Your task to perform on an android device: Add "amazon basics triple a" to the cart on target.com, then select checkout. Image 0: 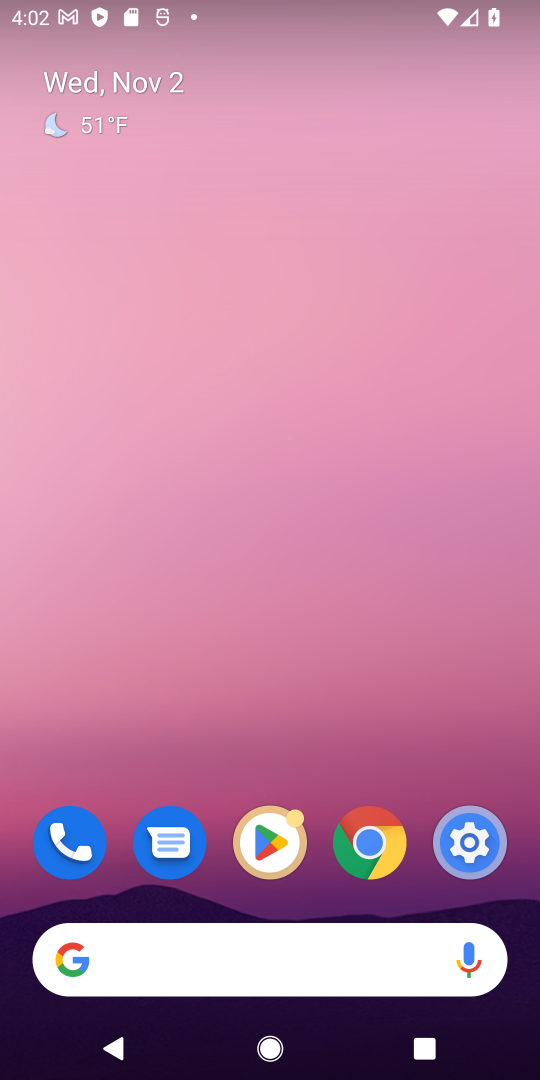
Step 0: click (273, 955)
Your task to perform on an android device: Add "amazon basics triple a" to the cart on target.com, then select checkout. Image 1: 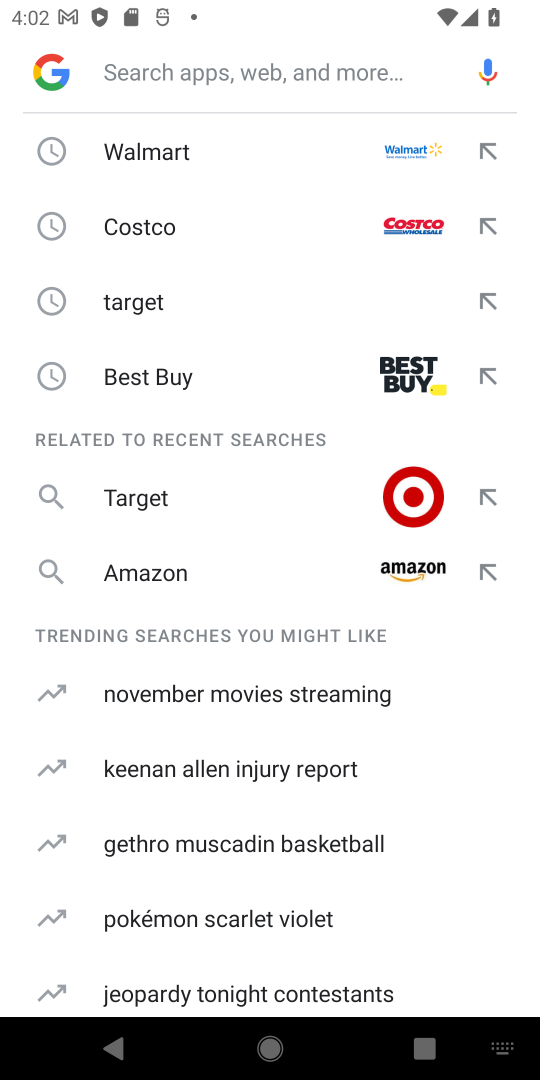
Step 1: type "target"
Your task to perform on an android device: Add "amazon basics triple a" to the cart on target.com, then select checkout. Image 2: 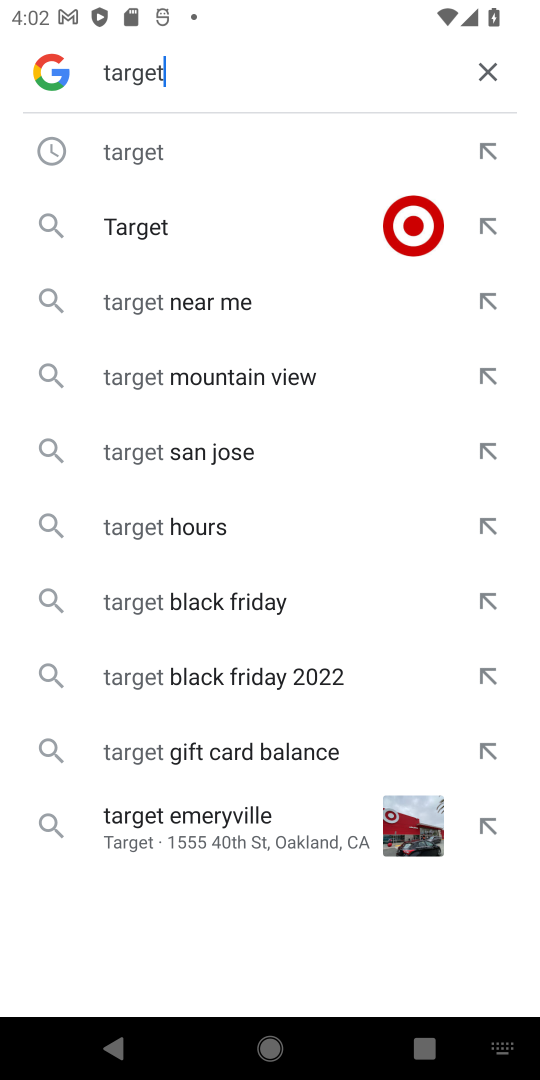
Step 2: click (146, 219)
Your task to perform on an android device: Add "amazon basics triple a" to the cart on target.com, then select checkout. Image 3: 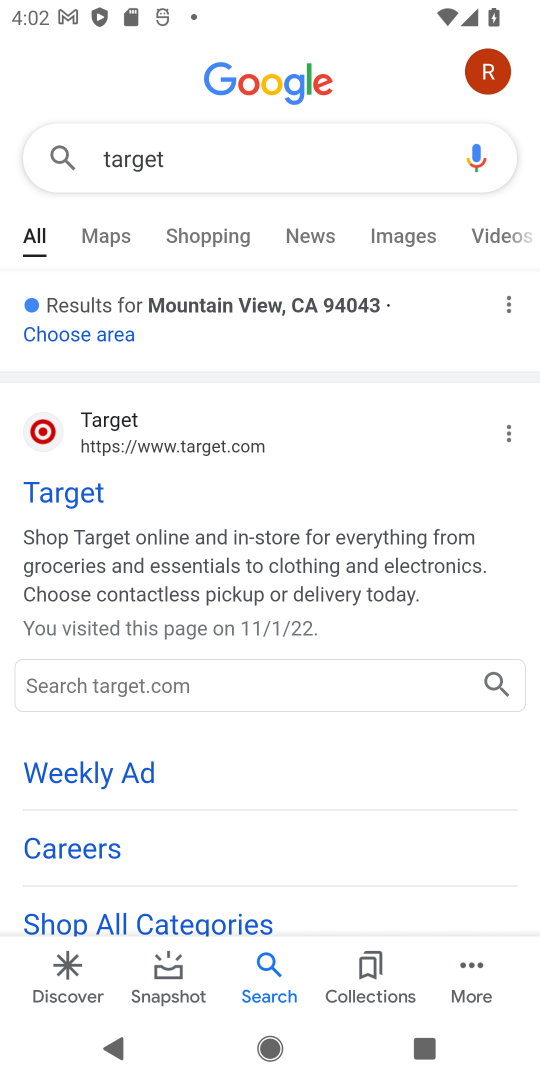
Step 3: click (83, 493)
Your task to perform on an android device: Add "amazon basics triple a" to the cart on target.com, then select checkout. Image 4: 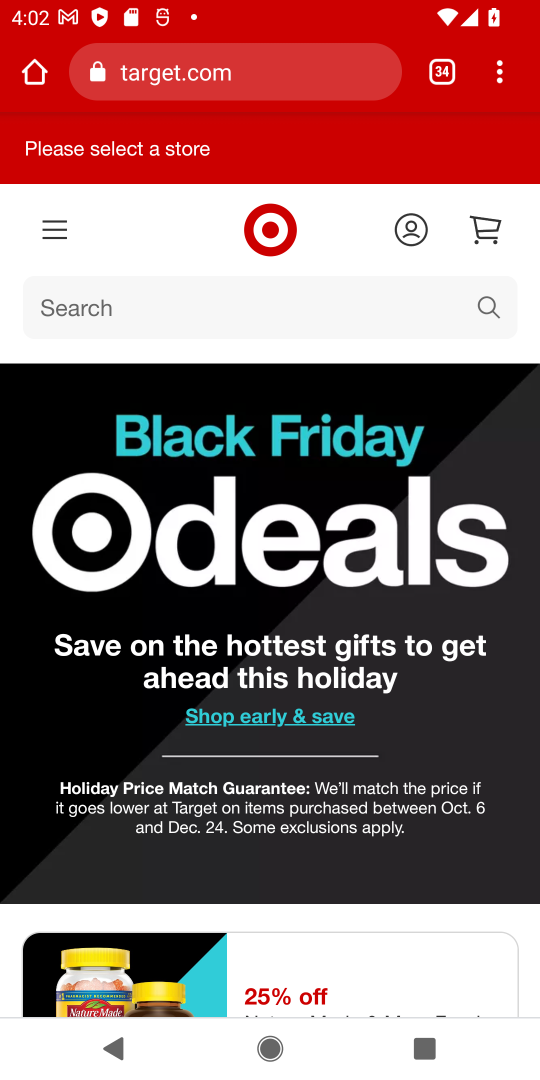
Step 4: click (154, 306)
Your task to perform on an android device: Add "amazon basics triple a" to the cart on target.com, then select checkout. Image 5: 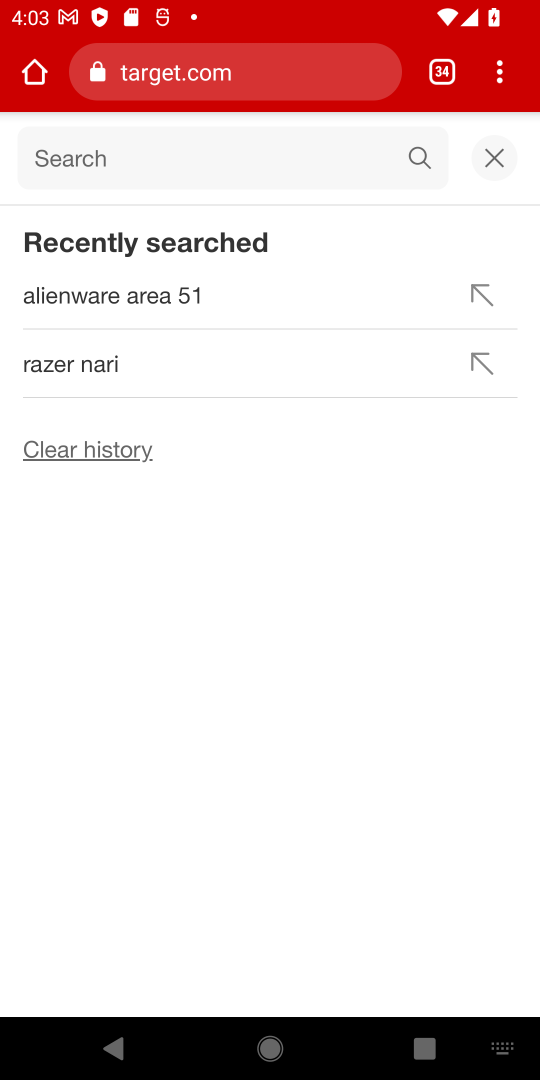
Step 5: type "amazon basics triple a"
Your task to perform on an android device: Add "amazon basics triple a" to the cart on target.com, then select checkout. Image 6: 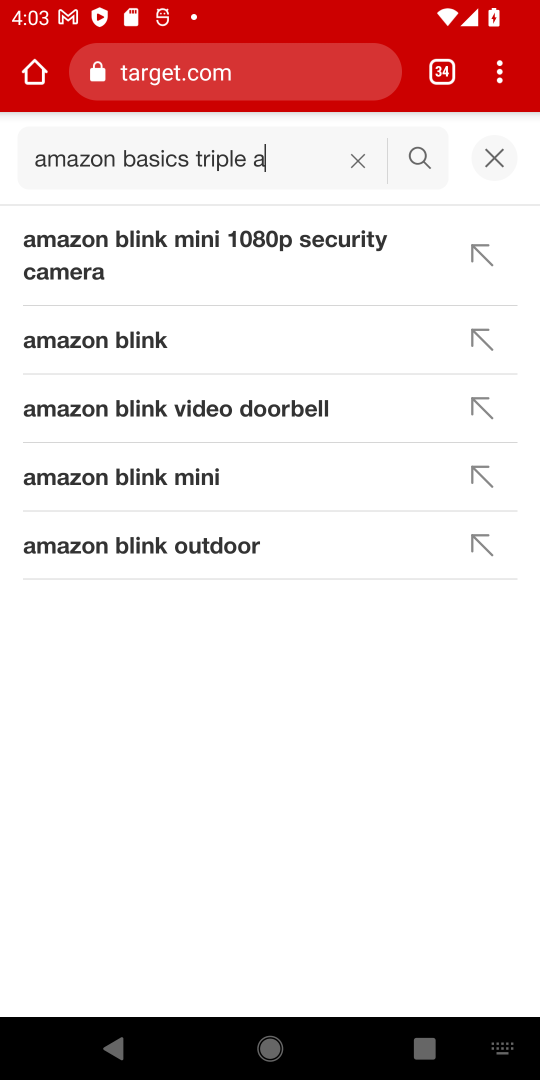
Step 6: click (416, 147)
Your task to perform on an android device: Add "amazon basics triple a" to the cart on target.com, then select checkout. Image 7: 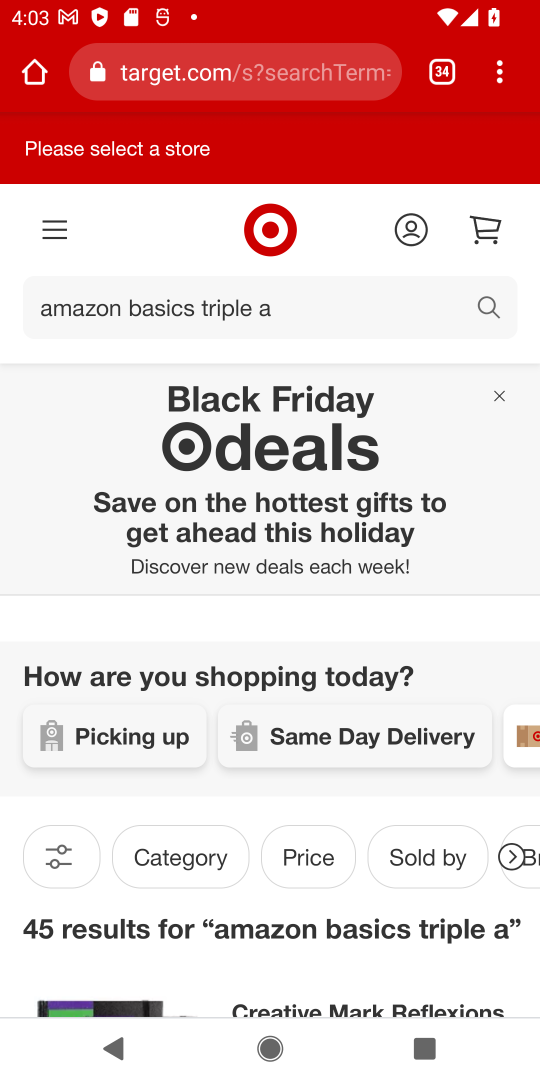
Step 7: click (493, 393)
Your task to perform on an android device: Add "amazon basics triple a" to the cart on target.com, then select checkout. Image 8: 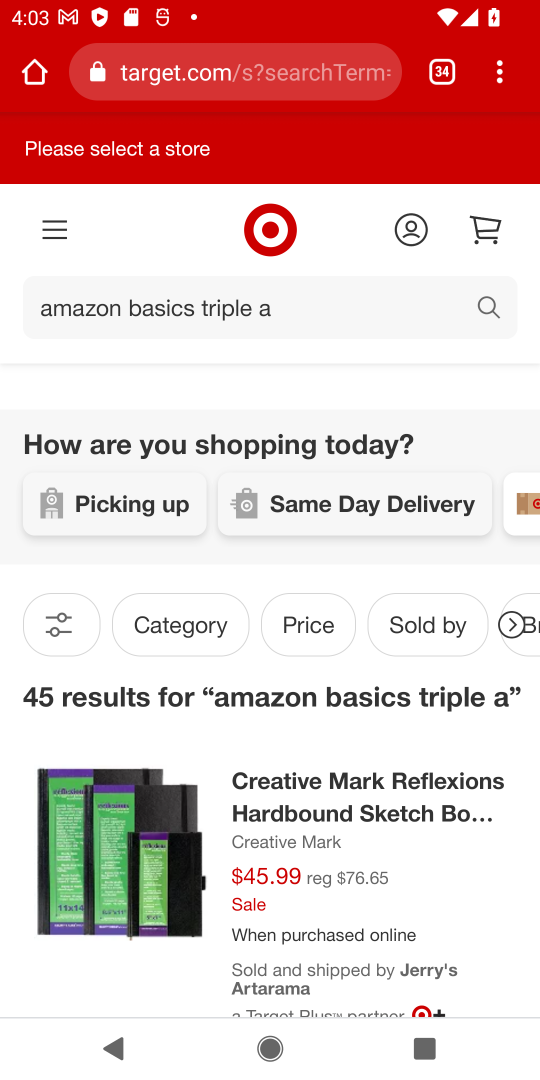
Step 8: drag from (452, 862) to (404, 511)
Your task to perform on an android device: Add "amazon basics triple a" to the cart on target.com, then select checkout. Image 9: 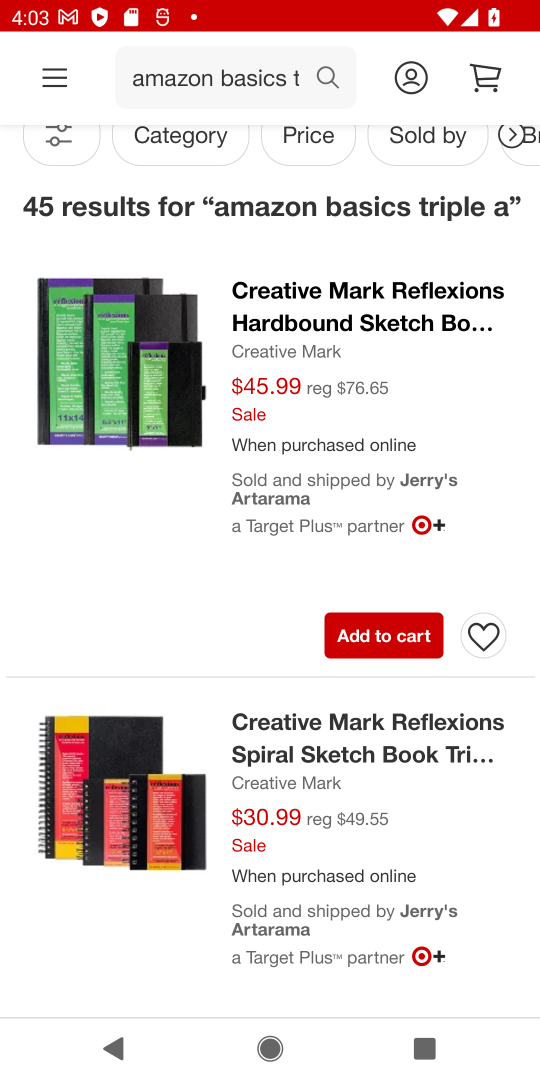
Step 9: click (364, 636)
Your task to perform on an android device: Add "amazon basics triple a" to the cart on target.com, then select checkout. Image 10: 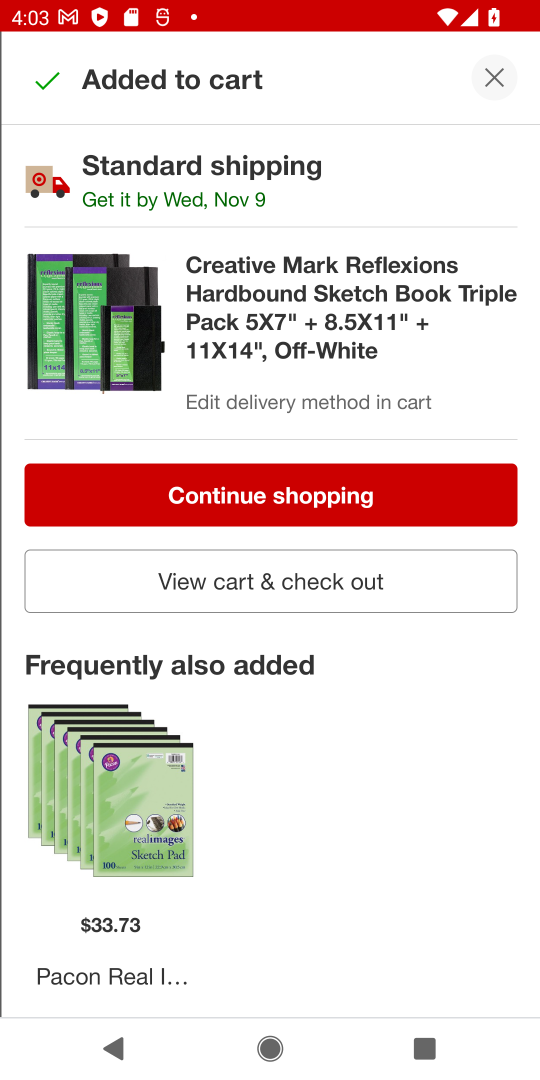
Step 10: click (271, 585)
Your task to perform on an android device: Add "amazon basics triple a" to the cart on target.com, then select checkout. Image 11: 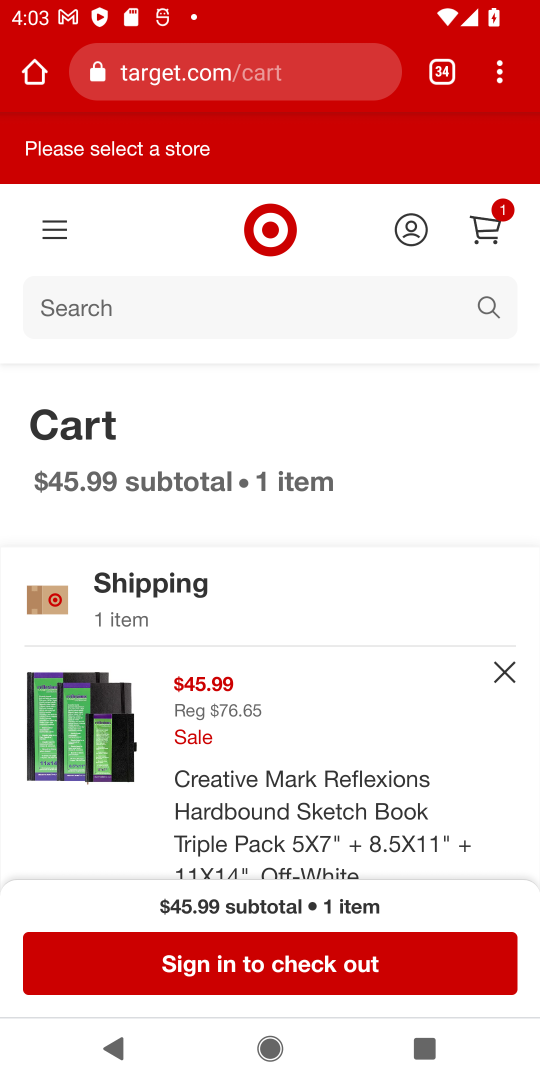
Step 11: click (313, 962)
Your task to perform on an android device: Add "amazon basics triple a" to the cart on target.com, then select checkout. Image 12: 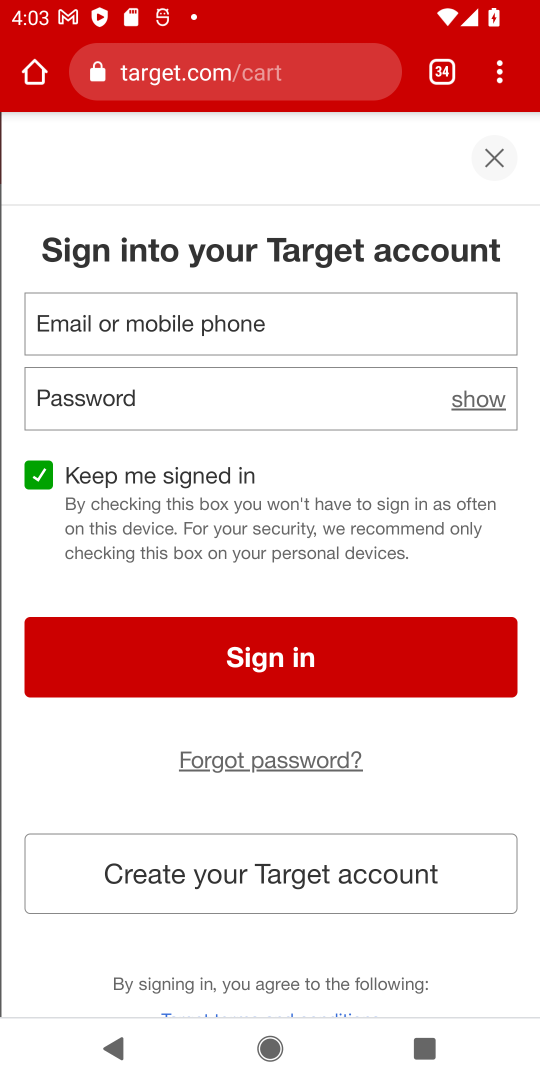
Step 12: task complete